Your task to perform on an android device: Go to Wikipedia Image 0: 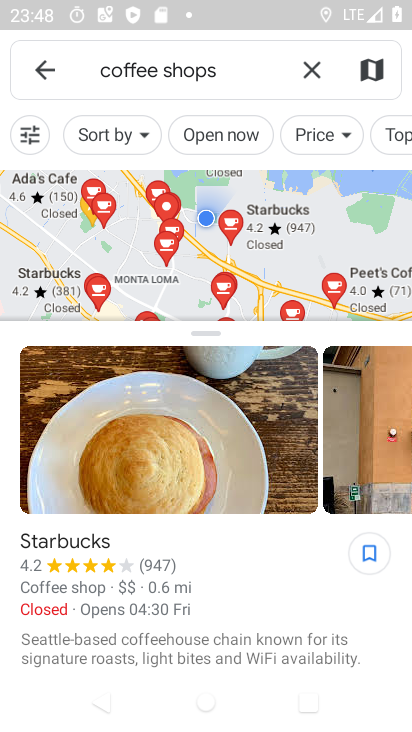
Step 0: press home button
Your task to perform on an android device: Go to Wikipedia Image 1: 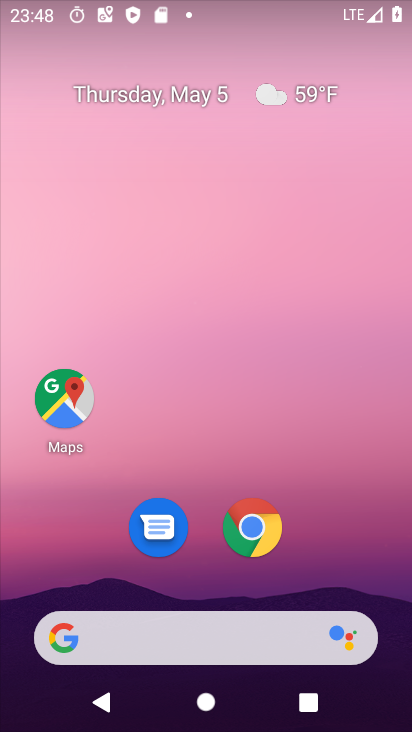
Step 1: click (265, 527)
Your task to perform on an android device: Go to Wikipedia Image 2: 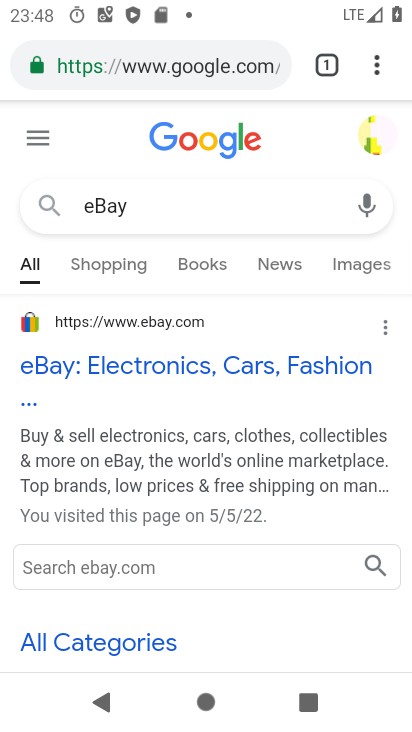
Step 2: click (169, 211)
Your task to perform on an android device: Go to Wikipedia Image 3: 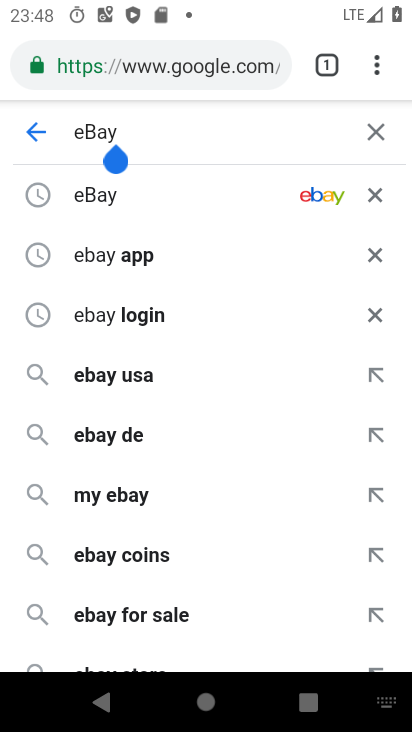
Step 3: click (169, 53)
Your task to perform on an android device: Go to Wikipedia Image 4: 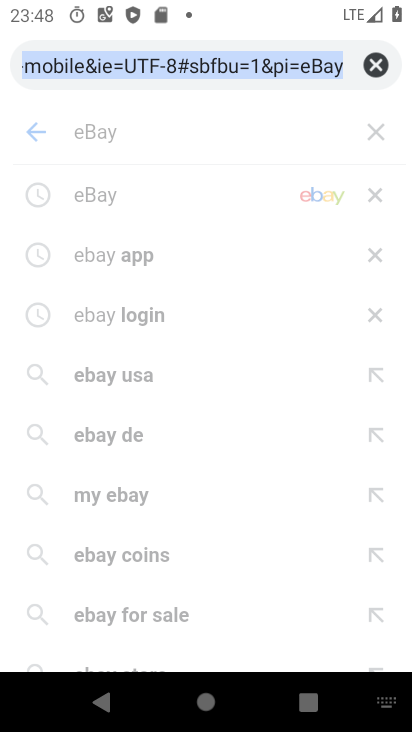
Step 4: type "wikipedia"
Your task to perform on an android device: Go to Wikipedia Image 5: 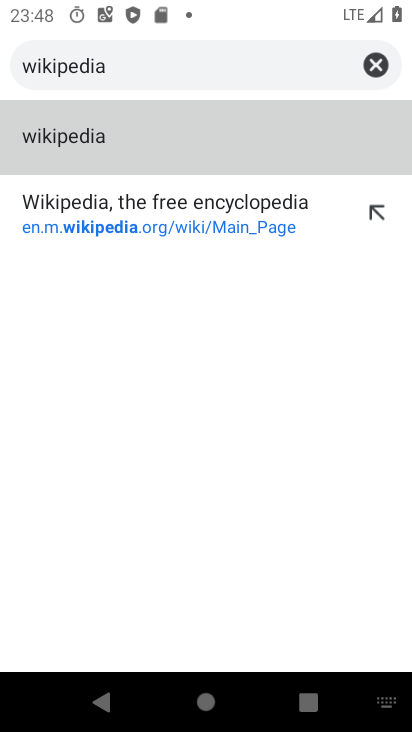
Step 5: click (88, 135)
Your task to perform on an android device: Go to Wikipedia Image 6: 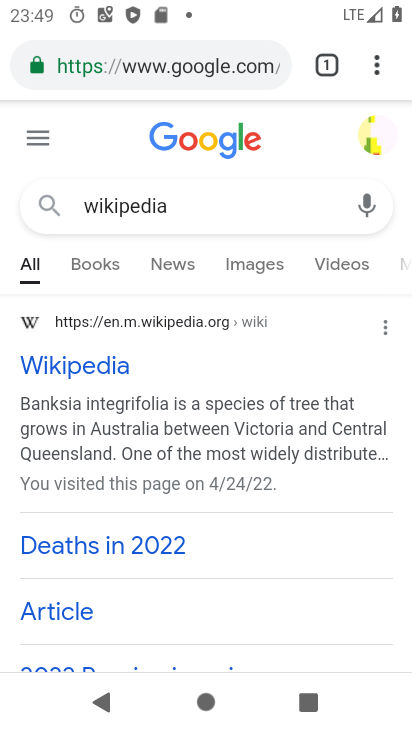
Step 6: task complete